Your task to perform on an android device: Empty the shopping cart on walmart. Search for "lg ultragear" on walmart, select the first entry, and add it to the cart. Image 0: 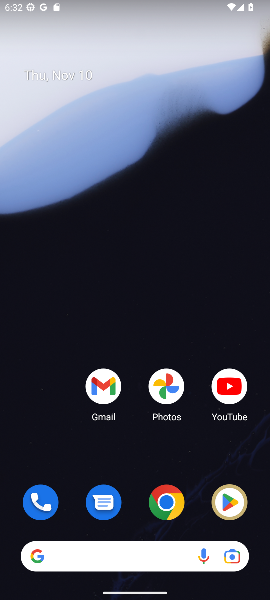
Step 0: drag from (128, 483) to (178, 147)
Your task to perform on an android device: Empty the shopping cart on walmart. Search for "lg ultragear" on walmart, select the first entry, and add it to the cart. Image 1: 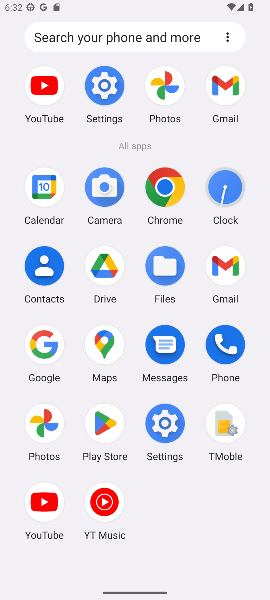
Step 1: click (45, 350)
Your task to perform on an android device: Empty the shopping cart on walmart. Search for "lg ultragear" on walmart, select the first entry, and add it to the cart. Image 2: 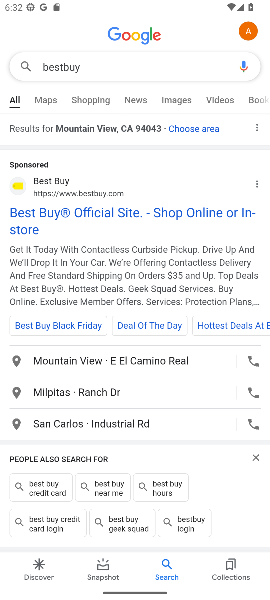
Step 2: click (106, 69)
Your task to perform on an android device: Empty the shopping cart on walmart. Search for "lg ultragear" on walmart, select the first entry, and add it to the cart. Image 3: 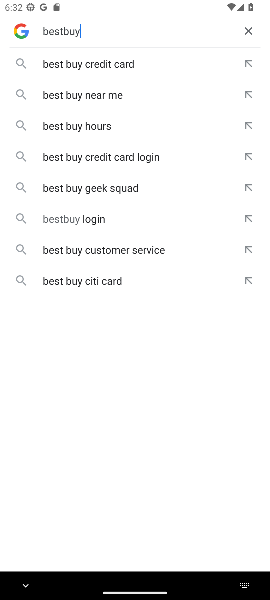
Step 3: click (247, 27)
Your task to perform on an android device: Empty the shopping cart on walmart. Search for "lg ultragear" on walmart, select the first entry, and add it to the cart. Image 4: 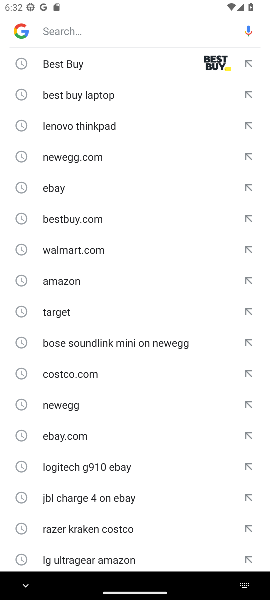
Step 4: type "walmart"
Your task to perform on an android device: Empty the shopping cart on walmart. Search for "lg ultragear" on walmart, select the first entry, and add it to the cart. Image 5: 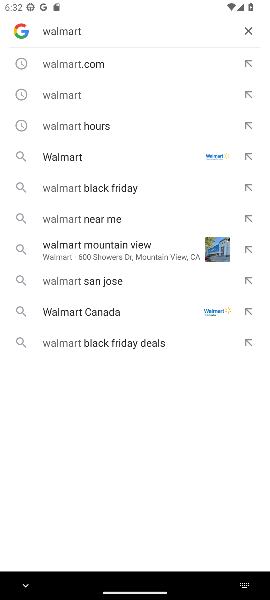
Step 5: click (59, 157)
Your task to perform on an android device: Empty the shopping cart on walmart. Search for "lg ultragear" on walmart, select the first entry, and add it to the cart. Image 6: 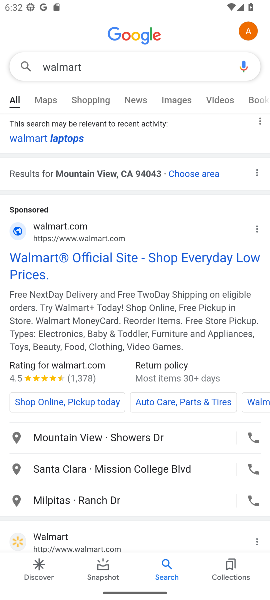
Step 6: click (26, 259)
Your task to perform on an android device: Empty the shopping cart on walmart. Search for "lg ultragear" on walmart, select the first entry, and add it to the cart. Image 7: 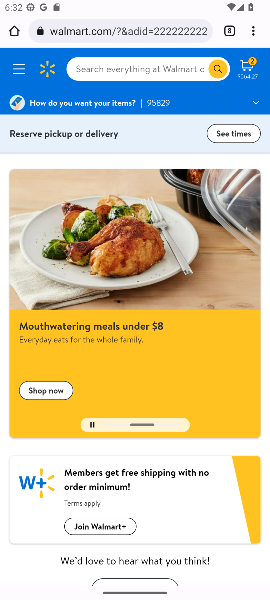
Step 7: click (113, 70)
Your task to perform on an android device: Empty the shopping cart on walmart. Search for "lg ultragear" on walmart, select the first entry, and add it to the cart. Image 8: 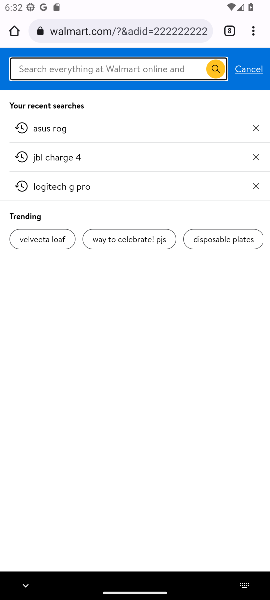
Step 8: type "lg ultragear"
Your task to perform on an android device: Empty the shopping cart on walmart. Search for "lg ultragear" on walmart, select the first entry, and add it to the cart. Image 9: 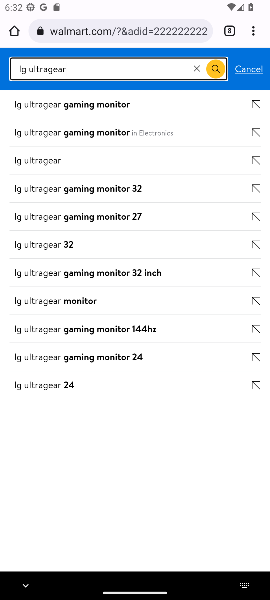
Step 9: click (52, 159)
Your task to perform on an android device: Empty the shopping cart on walmart. Search for "lg ultragear" on walmart, select the first entry, and add it to the cart. Image 10: 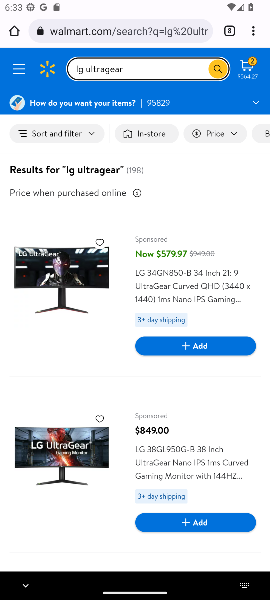
Step 10: click (180, 346)
Your task to perform on an android device: Empty the shopping cart on walmart. Search for "lg ultragear" on walmart, select the first entry, and add it to the cart. Image 11: 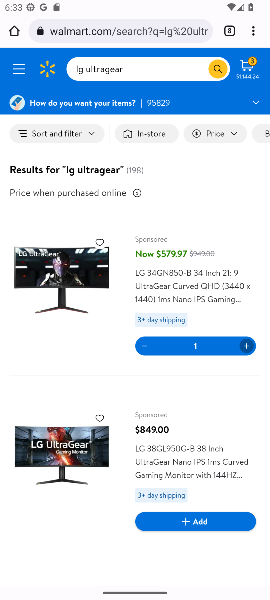
Step 11: task complete